Your task to perform on an android device: Find coffee shops on Maps Image 0: 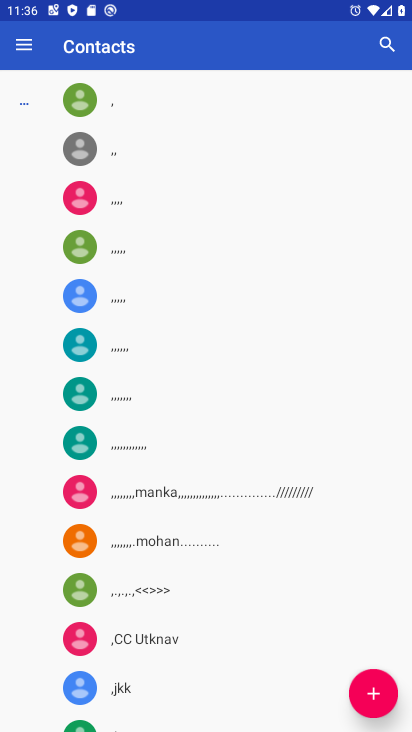
Step 0: press home button
Your task to perform on an android device: Find coffee shops on Maps Image 1: 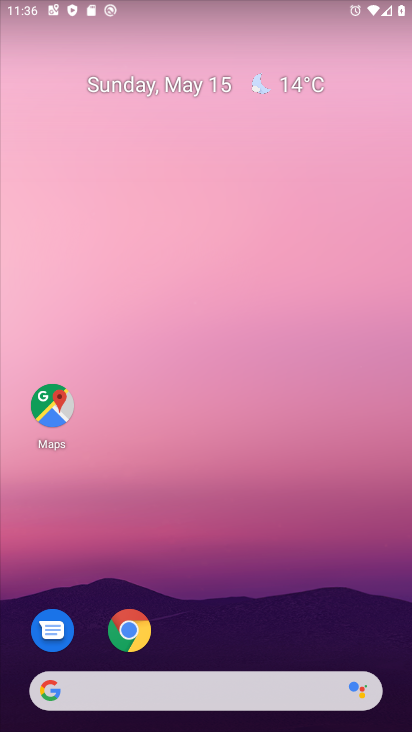
Step 1: drag from (188, 724) to (194, 207)
Your task to perform on an android device: Find coffee shops on Maps Image 2: 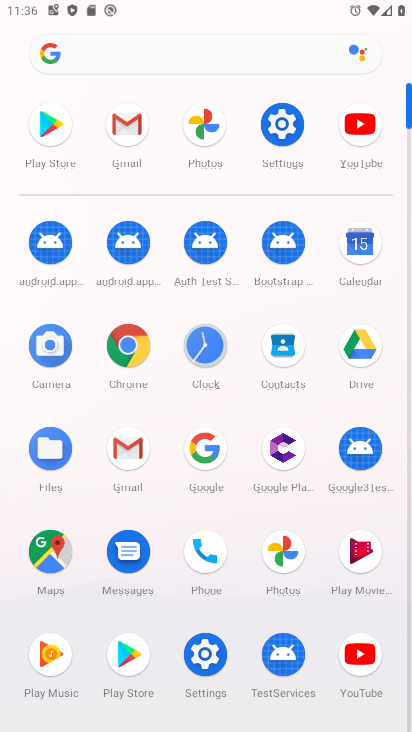
Step 2: click (51, 553)
Your task to perform on an android device: Find coffee shops on Maps Image 3: 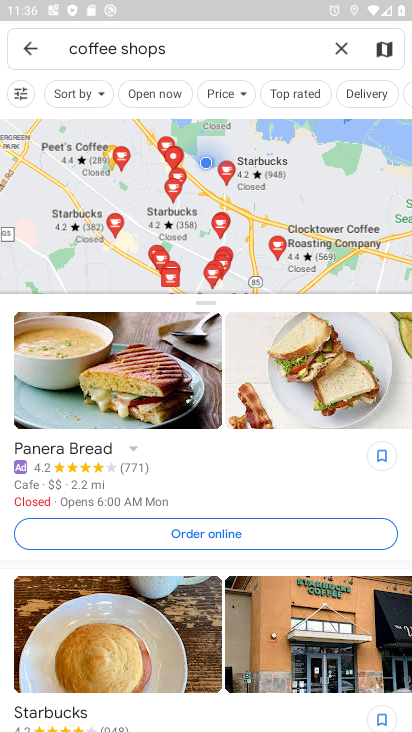
Step 3: task complete